Your task to perform on an android device: Open calendar and show me the fourth week of next month Image 0: 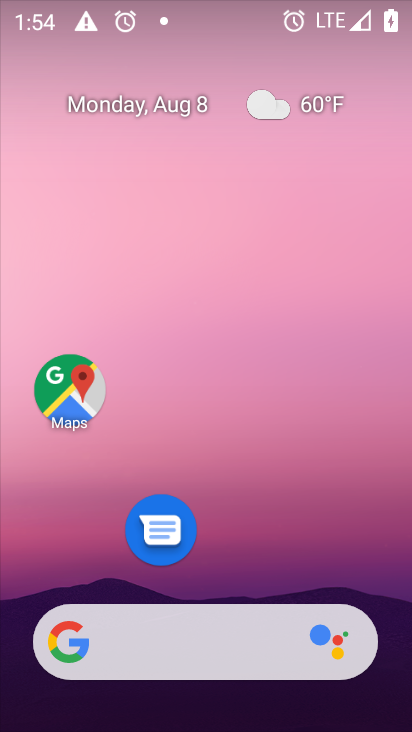
Step 0: drag from (233, 282) to (229, 14)
Your task to perform on an android device: Open calendar and show me the fourth week of next month Image 1: 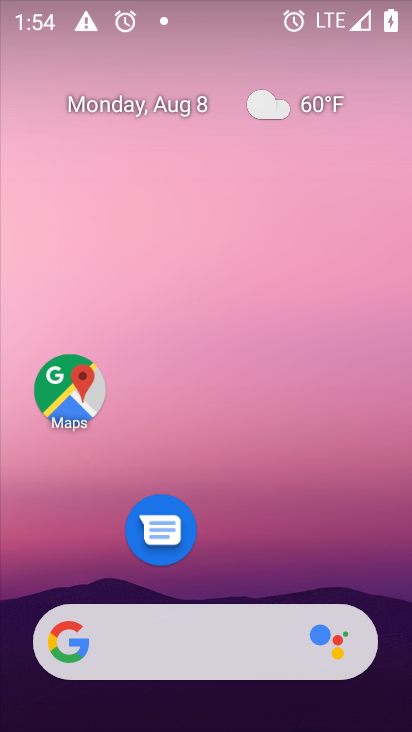
Step 1: drag from (233, 584) to (189, 19)
Your task to perform on an android device: Open calendar and show me the fourth week of next month Image 2: 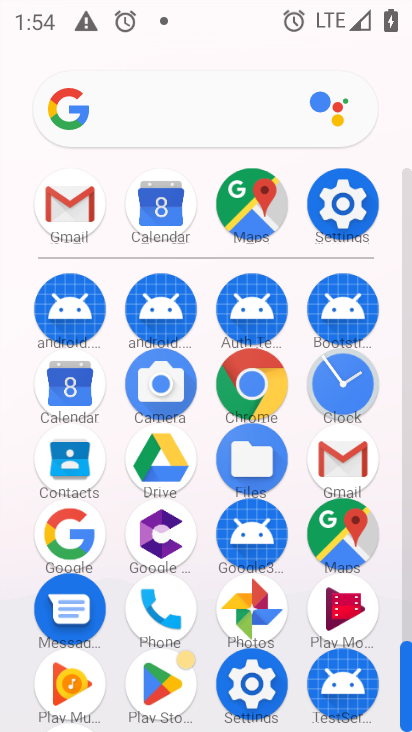
Step 2: click (65, 378)
Your task to perform on an android device: Open calendar and show me the fourth week of next month Image 3: 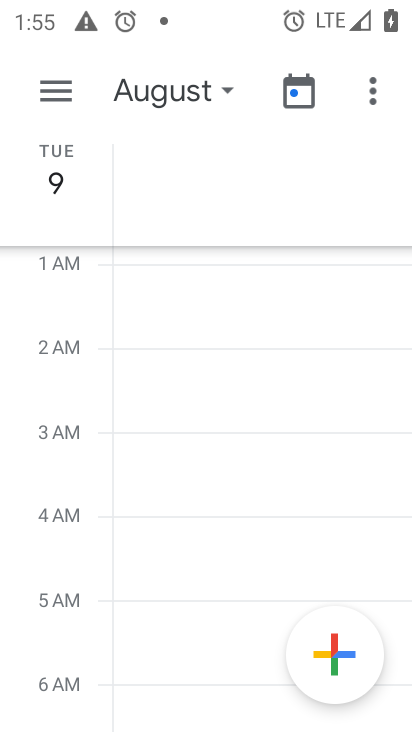
Step 3: click (224, 88)
Your task to perform on an android device: Open calendar and show me the fourth week of next month Image 4: 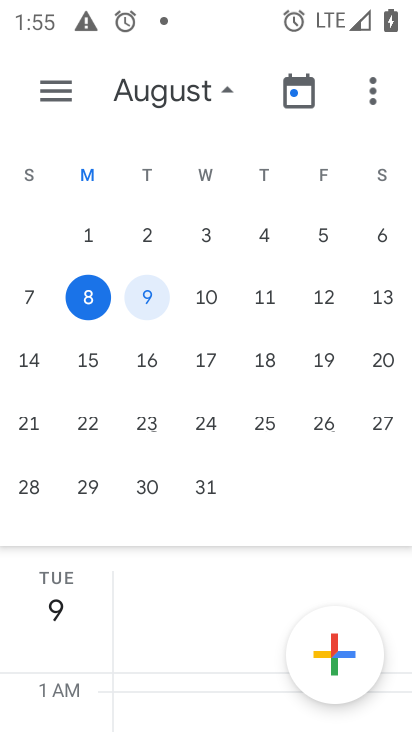
Step 4: drag from (359, 297) to (5, 307)
Your task to perform on an android device: Open calendar and show me the fourth week of next month Image 5: 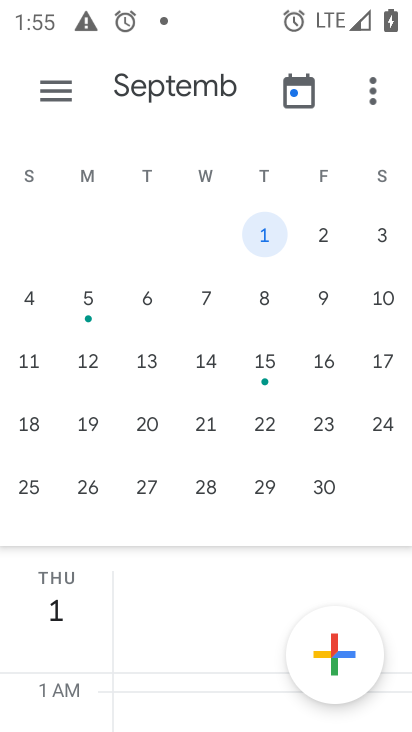
Step 5: click (95, 483)
Your task to perform on an android device: Open calendar and show me the fourth week of next month Image 6: 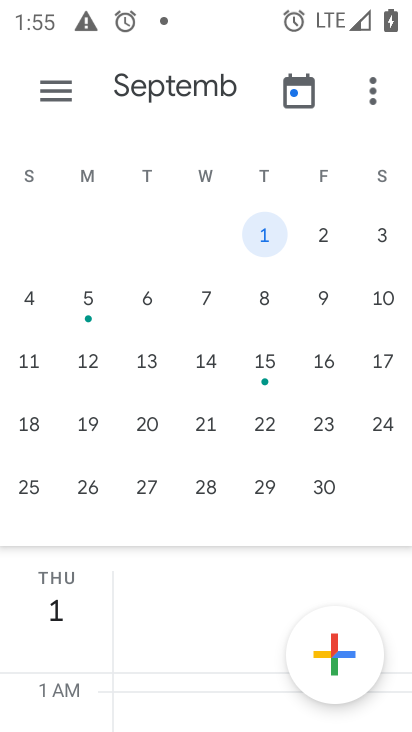
Step 6: click (82, 479)
Your task to perform on an android device: Open calendar and show me the fourth week of next month Image 7: 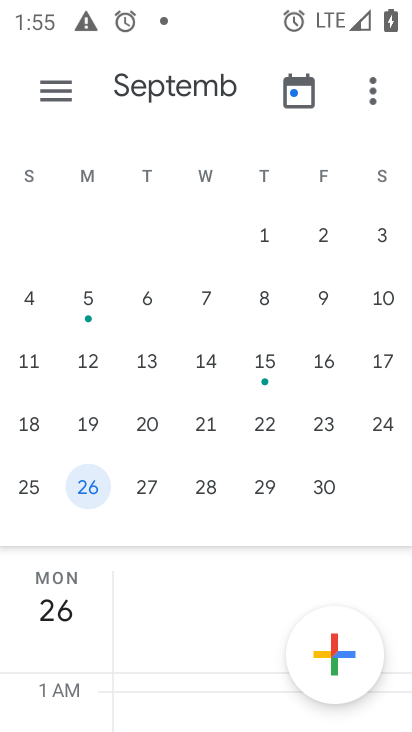
Step 7: click (52, 84)
Your task to perform on an android device: Open calendar and show me the fourth week of next month Image 8: 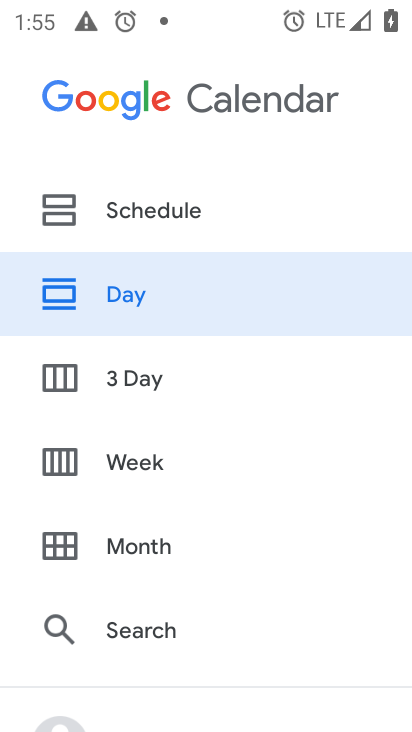
Step 8: click (136, 456)
Your task to perform on an android device: Open calendar and show me the fourth week of next month Image 9: 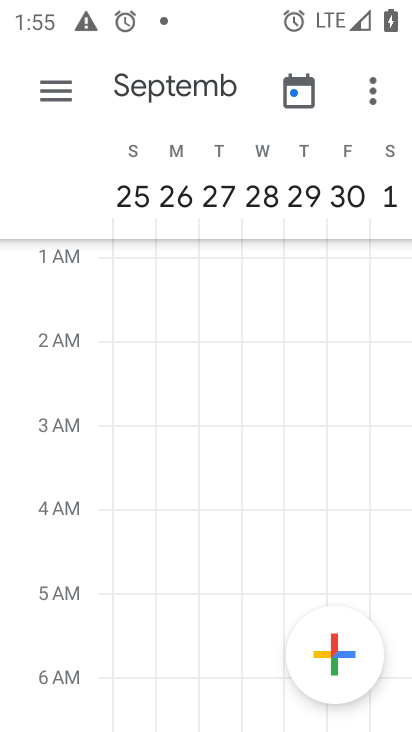
Step 9: task complete